Your task to perform on an android device: Open Amazon Image 0: 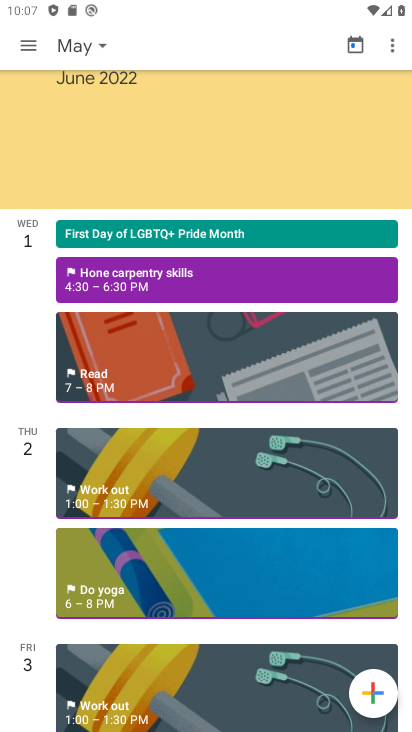
Step 0: press home button
Your task to perform on an android device: Open Amazon Image 1: 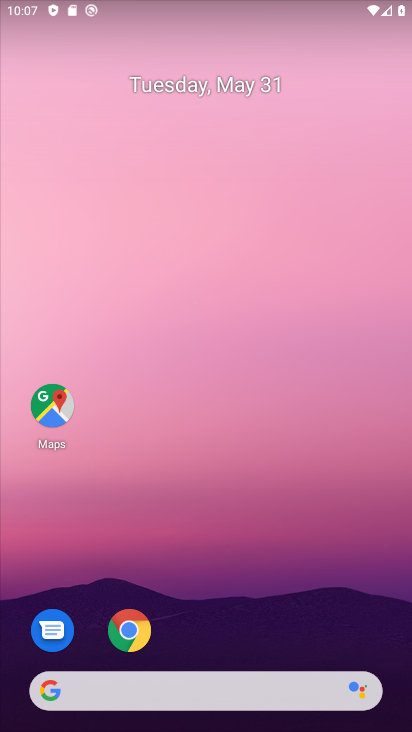
Step 1: click (278, 691)
Your task to perform on an android device: Open Amazon Image 2: 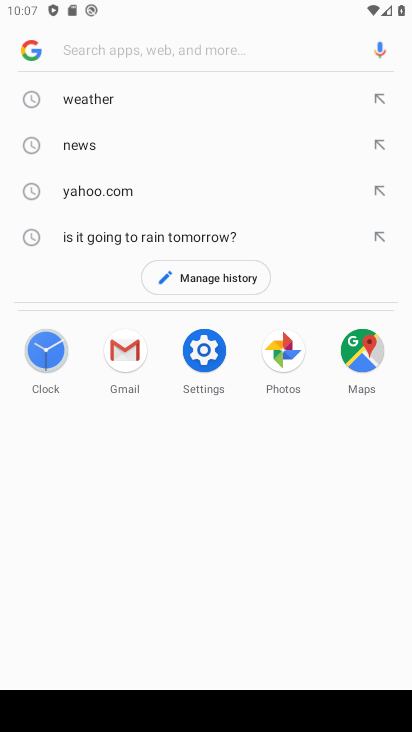
Step 2: type "Amazon"
Your task to perform on an android device: Open Amazon Image 3: 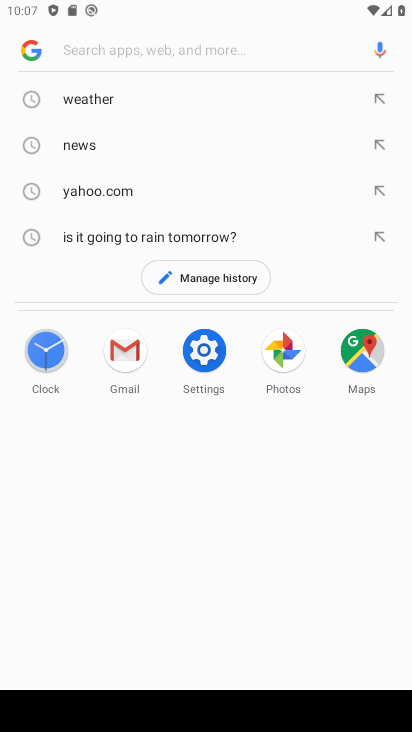
Step 3: click (150, 48)
Your task to perform on an android device: Open Amazon Image 4: 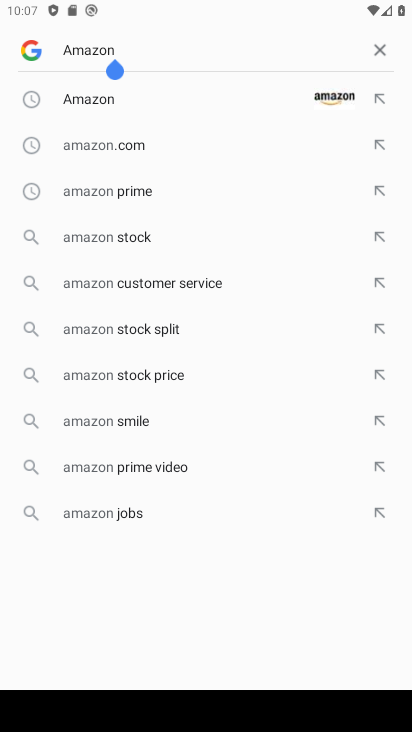
Step 4: click (118, 98)
Your task to perform on an android device: Open Amazon Image 5: 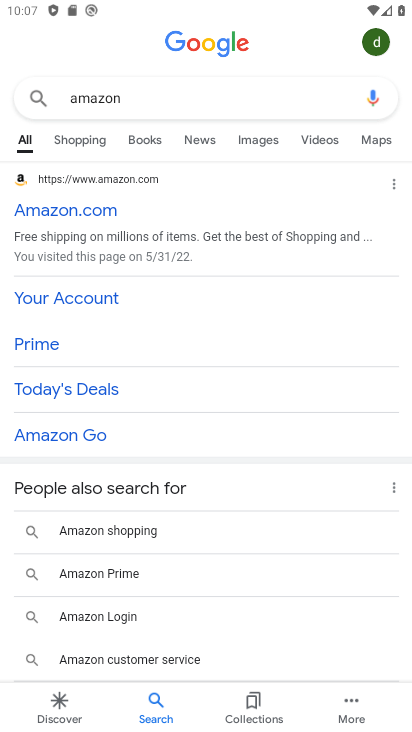
Step 5: click (72, 210)
Your task to perform on an android device: Open Amazon Image 6: 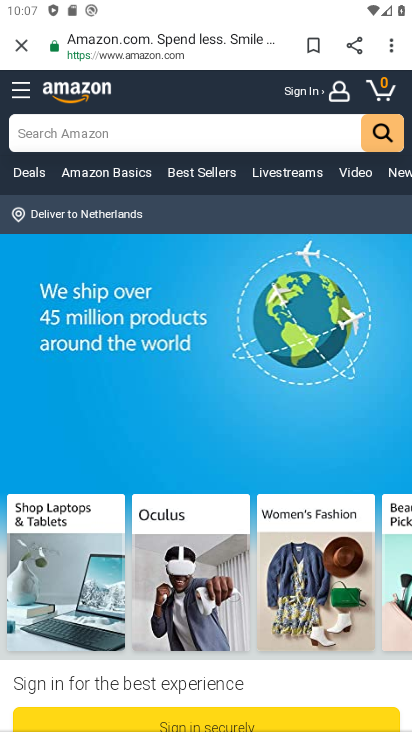
Step 6: task complete